Your task to perform on an android device: Show me the alarms in the clock app Image 0: 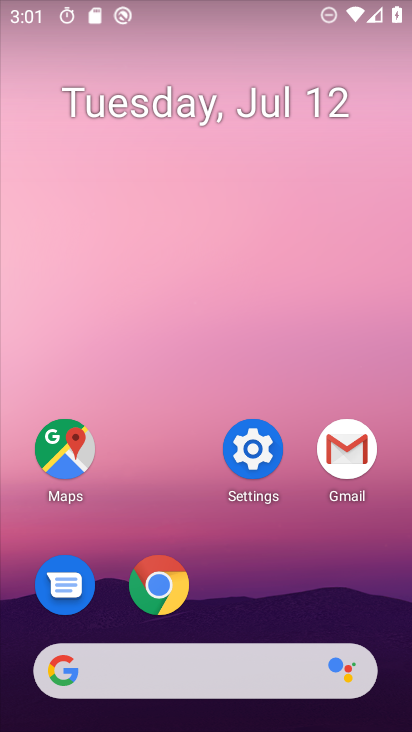
Step 0: drag from (385, 701) to (359, 184)
Your task to perform on an android device: Show me the alarms in the clock app Image 1: 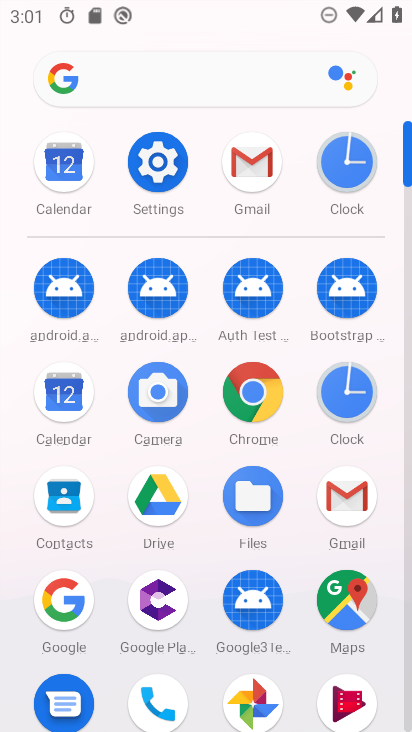
Step 1: click (344, 401)
Your task to perform on an android device: Show me the alarms in the clock app Image 2: 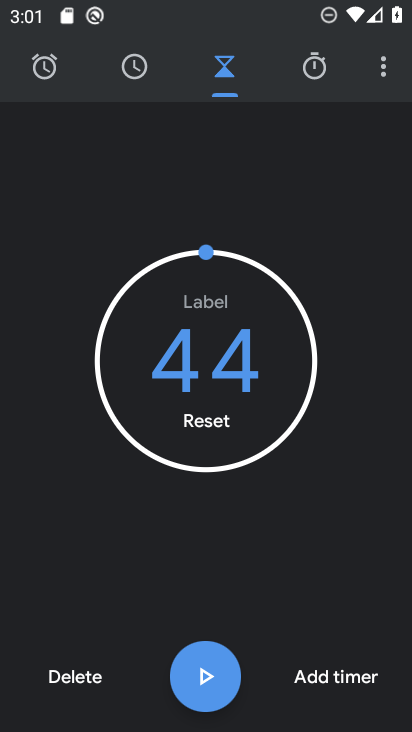
Step 2: click (41, 77)
Your task to perform on an android device: Show me the alarms in the clock app Image 3: 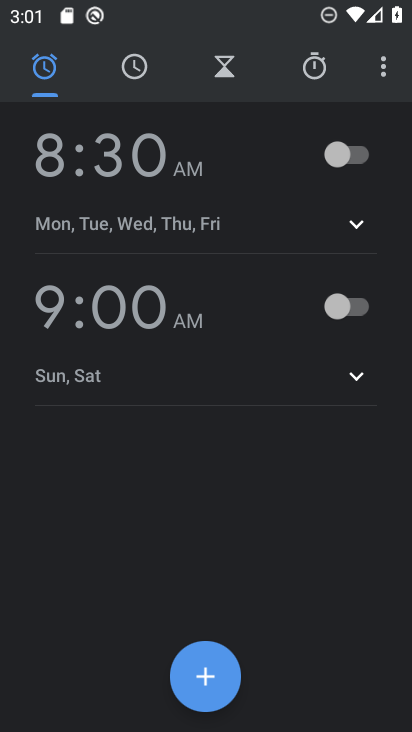
Step 3: task complete